Your task to perform on an android device: What's on my calendar today? Image 0: 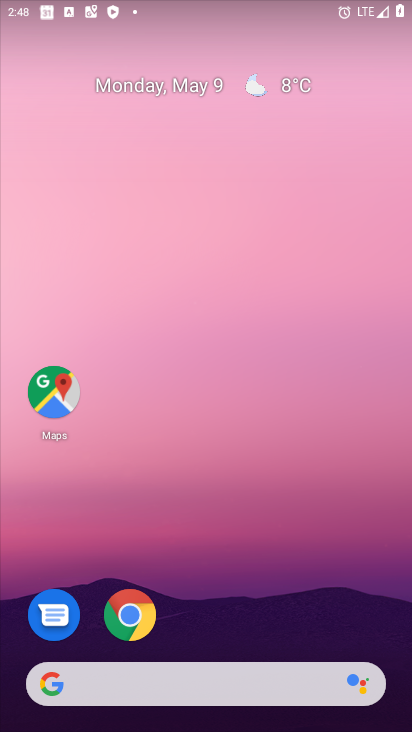
Step 0: drag from (379, 634) to (341, 28)
Your task to perform on an android device: What's on my calendar today? Image 1: 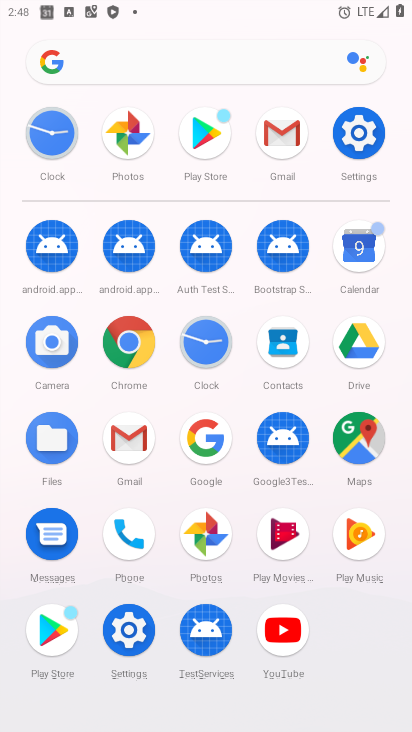
Step 1: click (359, 249)
Your task to perform on an android device: What's on my calendar today? Image 2: 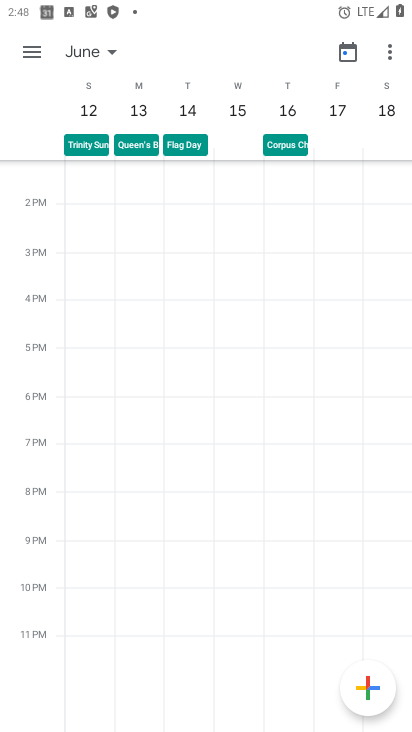
Step 2: click (25, 47)
Your task to perform on an android device: What's on my calendar today? Image 3: 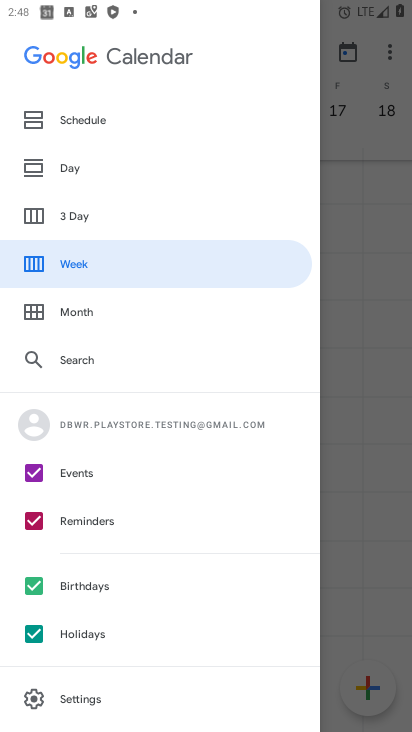
Step 3: click (63, 163)
Your task to perform on an android device: What's on my calendar today? Image 4: 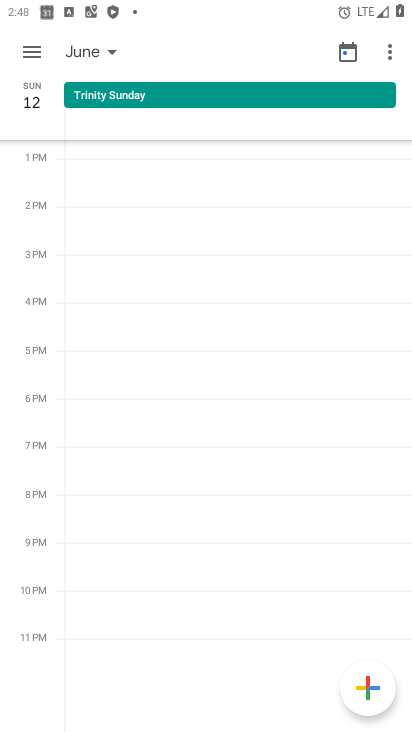
Step 4: drag from (205, 592) to (194, 637)
Your task to perform on an android device: What's on my calendar today? Image 5: 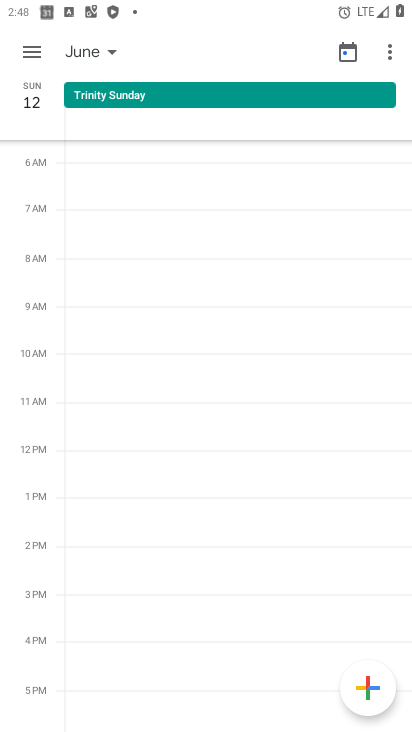
Step 5: drag from (232, 218) to (195, 569)
Your task to perform on an android device: What's on my calendar today? Image 6: 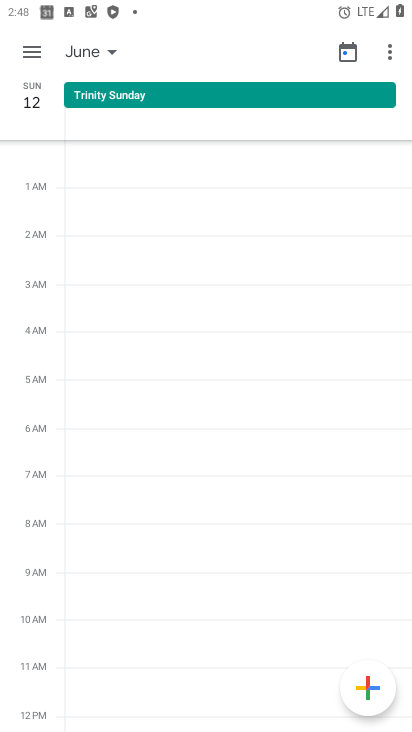
Step 6: click (111, 52)
Your task to perform on an android device: What's on my calendar today? Image 7: 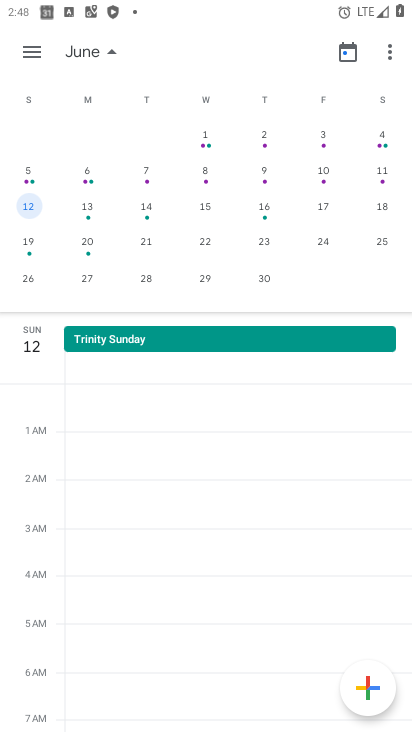
Step 7: click (36, 51)
Your task to perform on an android device: What's on my calendar today? Image 8: 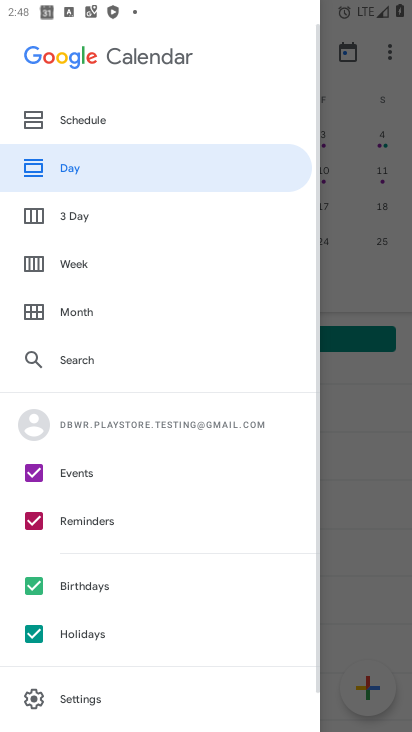
Step 8: click (75, 170)
Your task to perform on an android device: What's on my calendar today? Image 9: 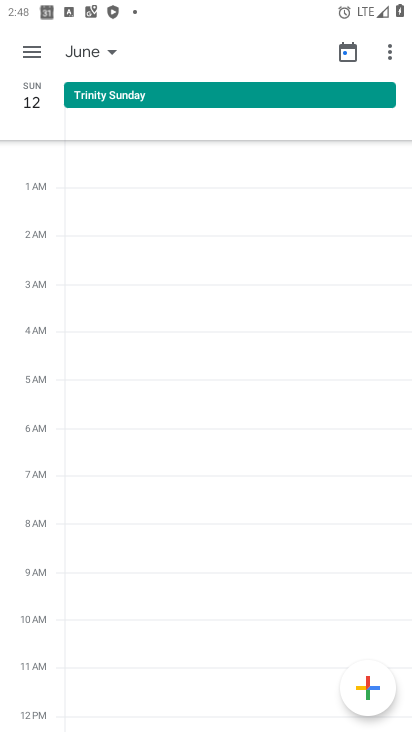
Step 9: click (110, 46)
Your task to perform on an android device: What's on my calendar today? Image 10: 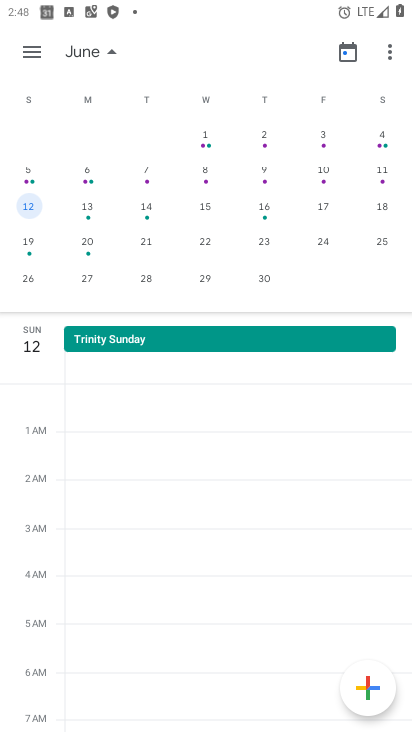
Step 10: drag from (17, 160) to (410, 195)
Your task to perform on an android device: What's on my calendar today? Image 11: 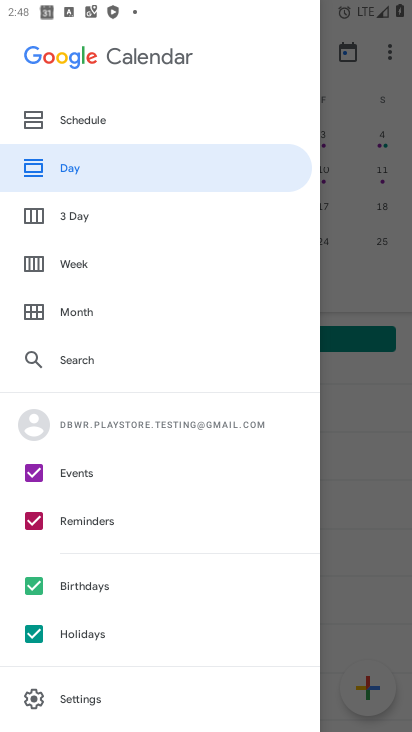
Step 11: click (137, 166)
Your task to perform on an android device: What's on my calendar today? Image 12: 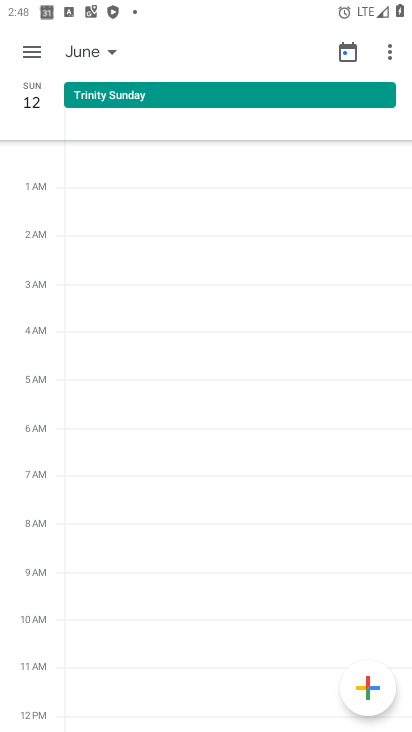
Step 12: click (108, 48)
Your task to perform on an android device: What's on my calendar today? Image 13: 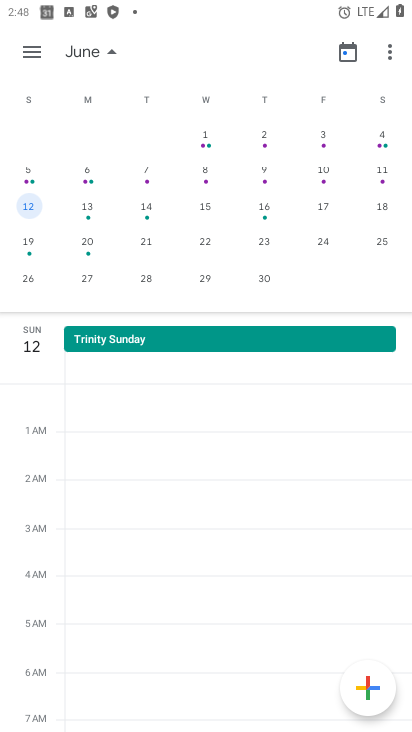
Step 13: drag from (25, 241) to (387, 194)
Your task to perform on an android device: What's on my calendar today? Image 14: 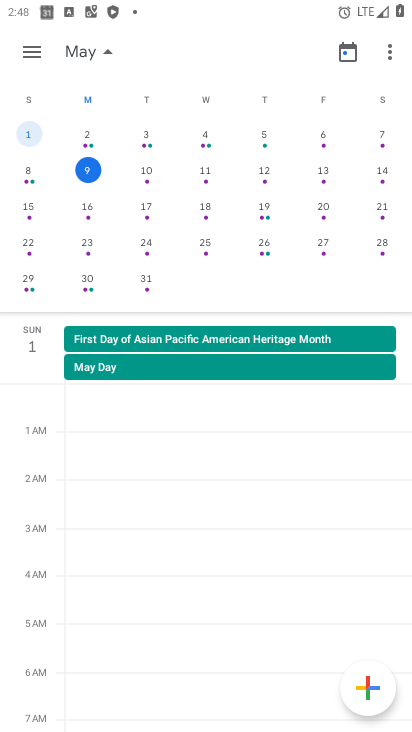
Step 14: click (150, 588)
Your task to perform on an android device: What's on my calendar today? Image 15: 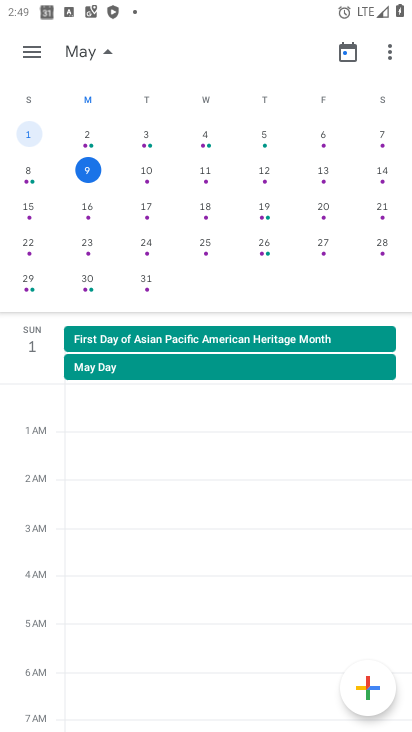
Step 15: click (87, 176)
Your task to perform on an android device: What's on my calendar today? Image 16: 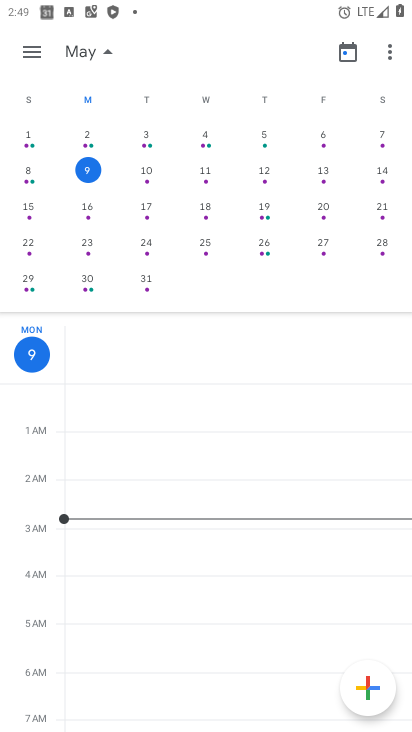
Step 16: task complete